Your task to perform on an android device: open app "Move to iOS" (install if not already installed) Image 0: 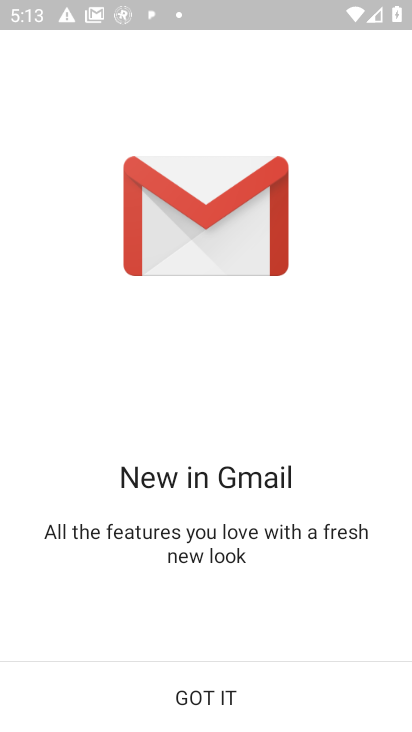
Step 0: press home button
Your task to perform on an android device: open app "Move to iOS" (install if not already installed) Image 1: 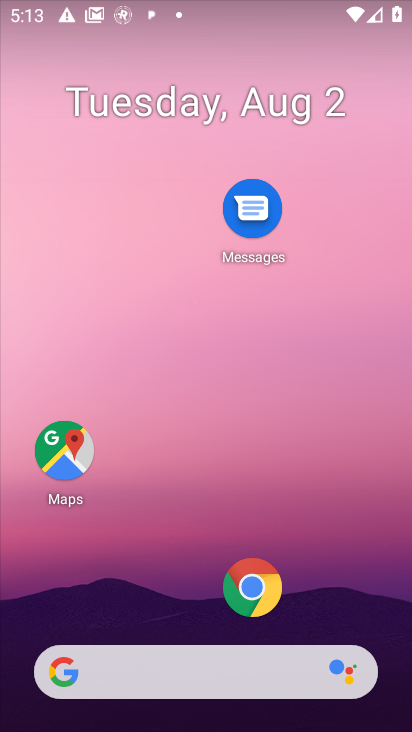
Step 1: drag from (204, 517) to (235, 137)
Your task to perform on an android device: open app "Move to iOS" (install if not already installed) Image 2: 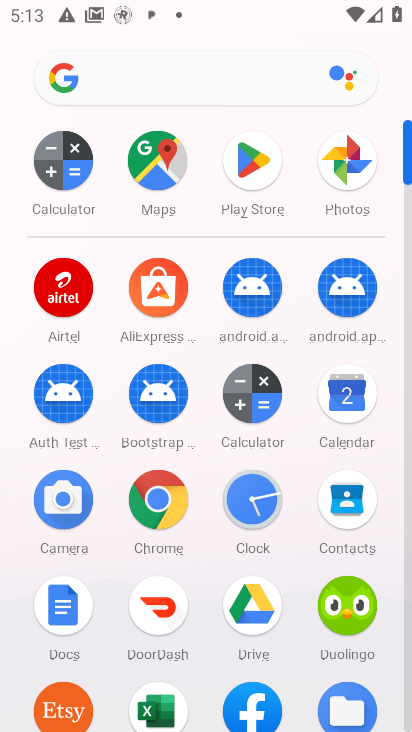
Step 2: click (253, 129)
Your task to perform on an android device: open app "Move to iOS" (install if not already installed) Image 3: 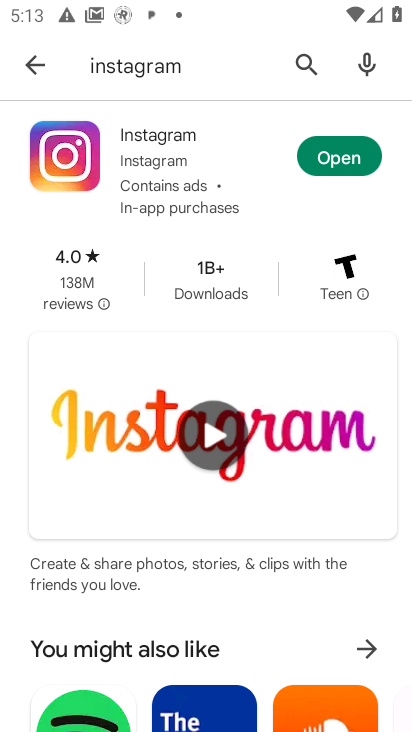
Step 3: click (312, 61)
Your task to perform on an android device: open app "Move to iOS" (install if not already installed) Image 4: 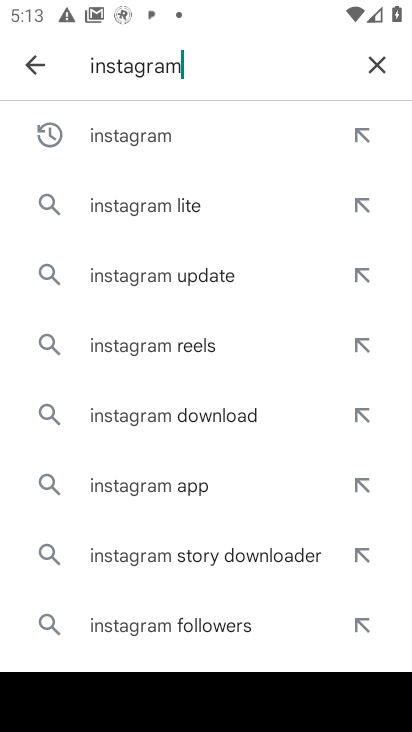
Step 4: click (391, 70)
Your task to perform on an android device: open app "Move to iOS" (install if not already installed) Image 5: 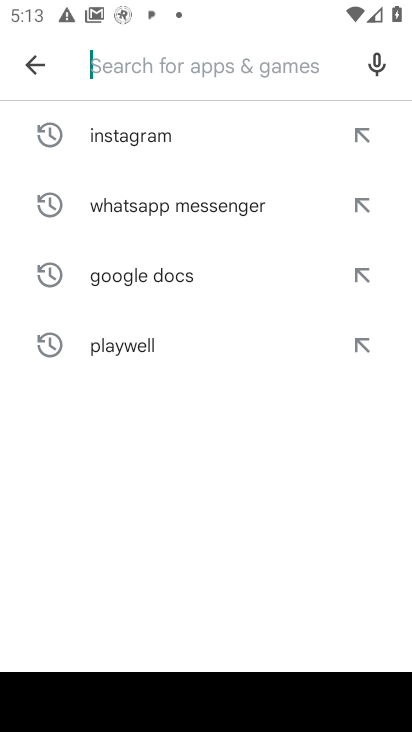
Step 5: type "Move to iOS"
Your task to perform on an android device: open app "Move to iOS" (install if not already installed) Image 6: 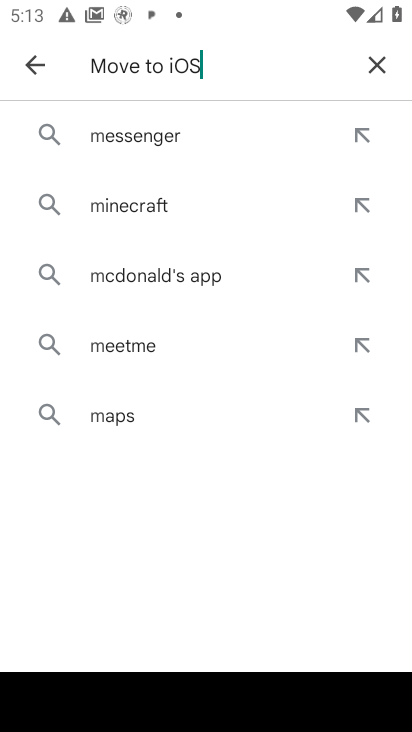
Step 6: type ""
Your task to perform on an android device: open app "Move to iOS" (install if not already installed) Image 7: 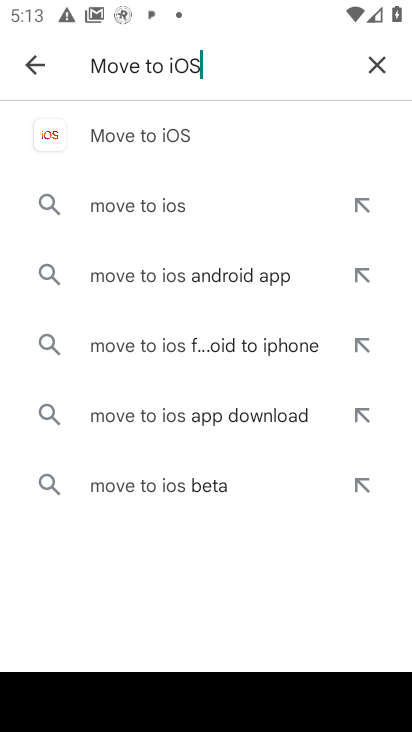
Step 7: click (169, 129)
Your task to perform on an android device: open app "Move to iOS" (install if not already installed) Image 8: 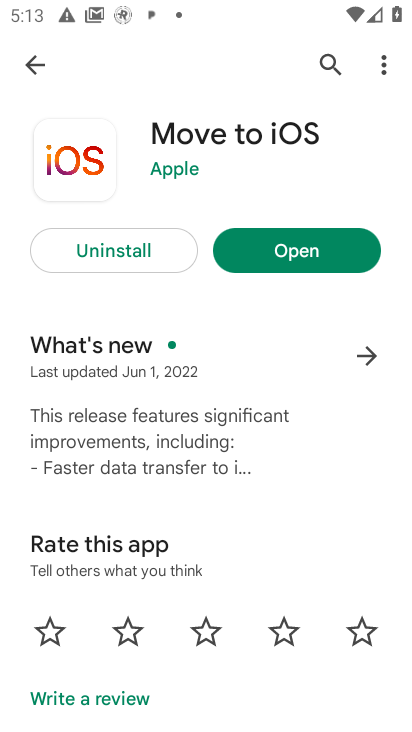
Step 8: click (297, 277)
Your task to perform on an android device: open app "Move to iOS" (install if not already installed) Image 9: 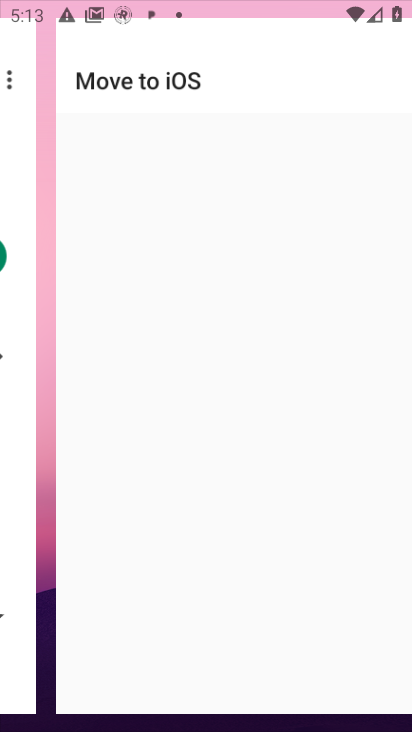
Step 9: click (297, 260)
Your task to perform on an android device: open app "Move to iOS" (install if not already installed) Image 10: 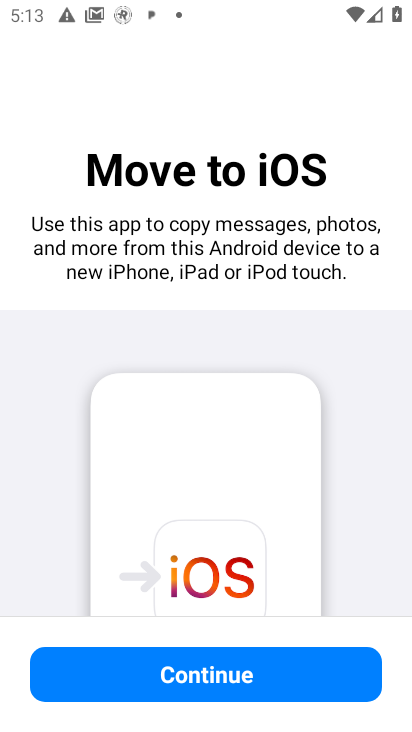
Step 10: task complete